Your task to perform on an android device: Toggle the flashlight Image 0: 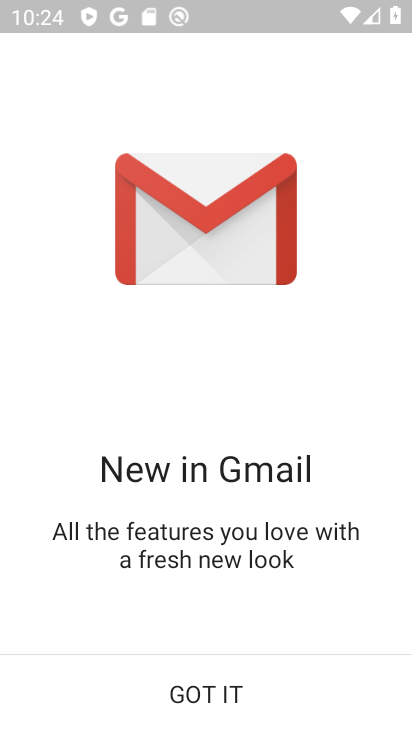
Step 0: click (206, 698)
Your task to perform on an android device: Toggle the flashlight Image 1: 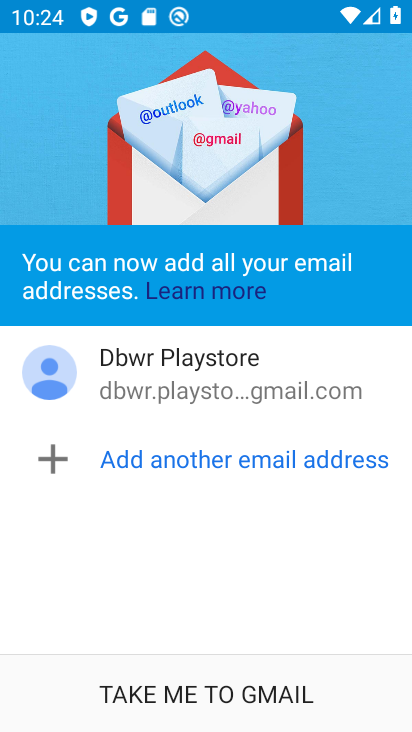
Step 1: press back button
Your task to perform on an android device: Toggle the flashlight Image 2: 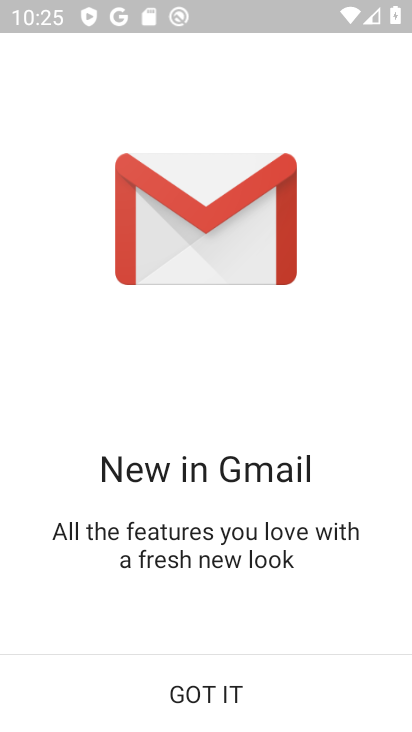
Step 2: click (163, 730)
Your task to perform on an android device: Toggle the flashlight Image 3: 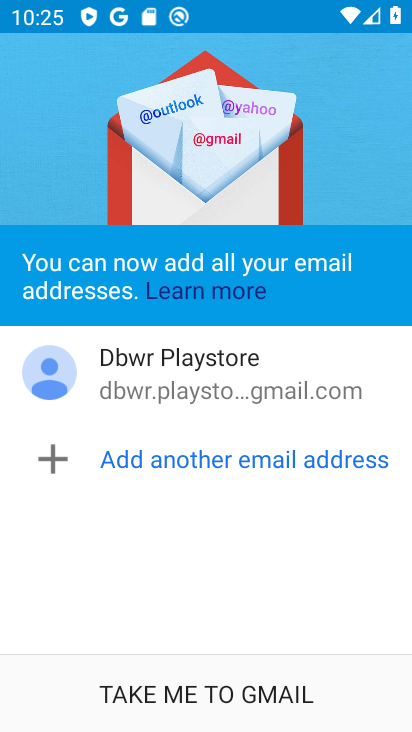
Step 3: click (176, 709)
Your task to perform on an android device: Toggle the flashlight Image 4: 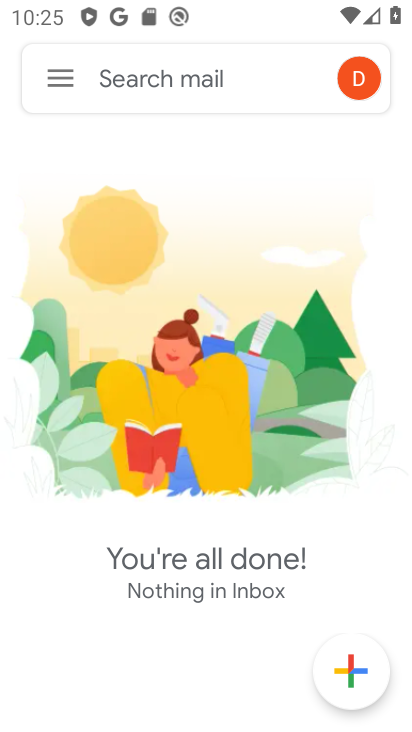
Step 4: press back button
Your task to perform on an android device: Toggle the flashlight Image 5: 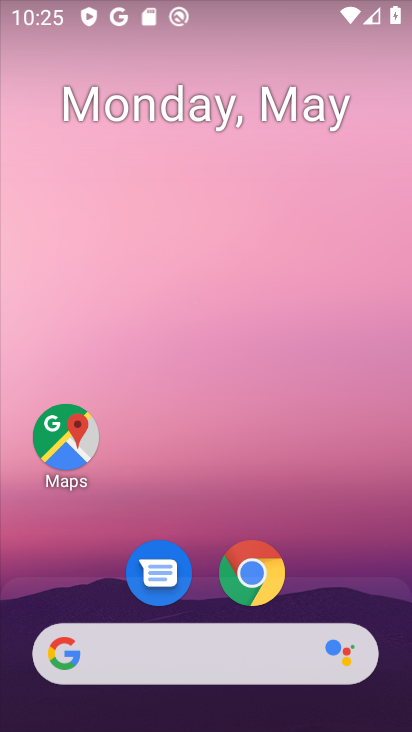
Step 5: drag from (236, 438) to (254, 41)
Your task to perform on an android device: Toggle the flashlight Image 6: 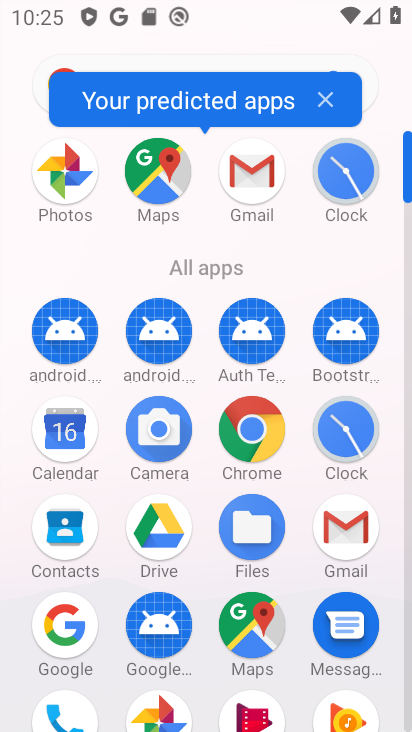
Step 6: drag from (178, 548) to (242, 85)
Your task to perform on an android device: Toggle the flashlight Image 7: 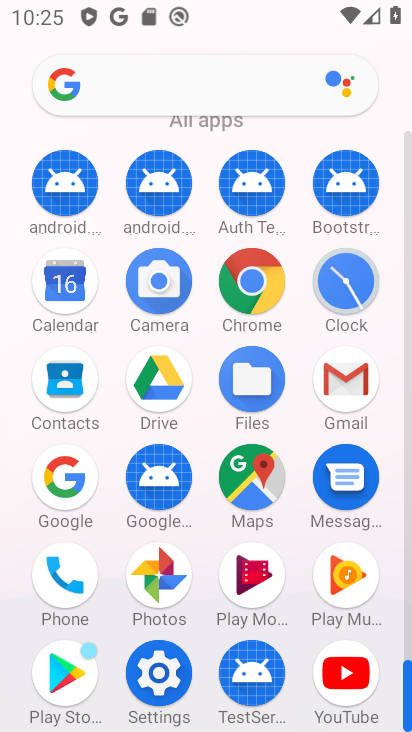
Step 7: click (151, 676)
Your task to perform on an android device: Toggle the flashlight Image 8: 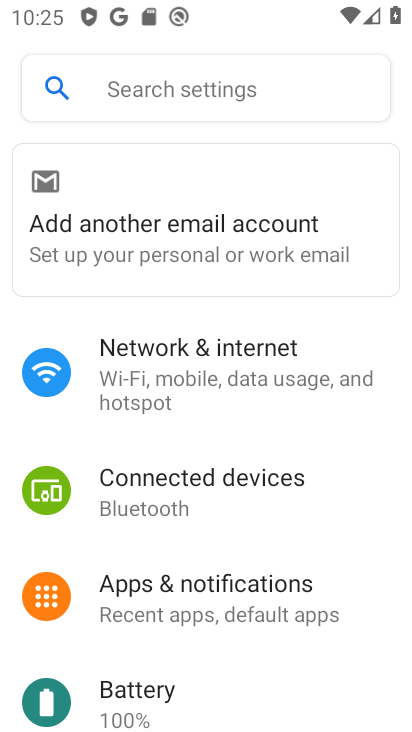
Step 8: click (162, 76)
Your task to perform on an android device: Toggle the flashlight Image 9: 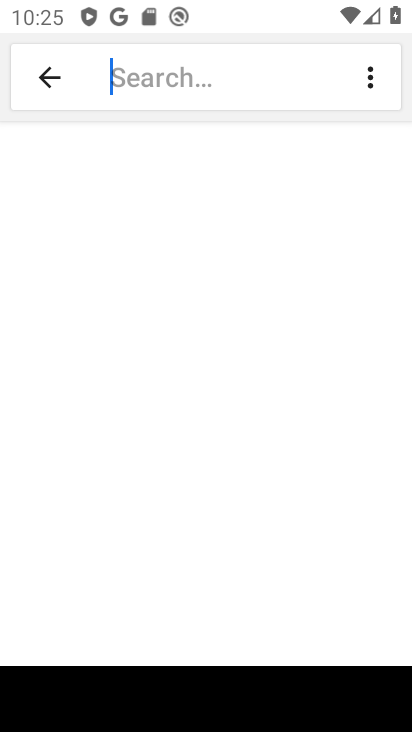
Step 9: type "flashlight"
Your task to perform on an android device: Toggle the flashlight Image 10: 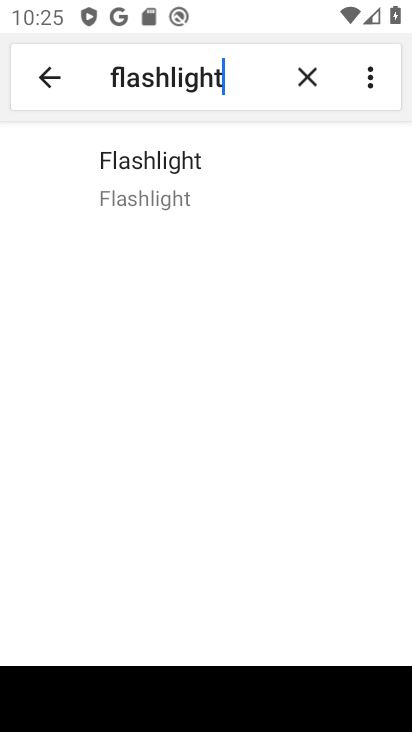
Step 10: click (147, 178)
Your task to perform on an android device: Toggle the flashlight Image 11: 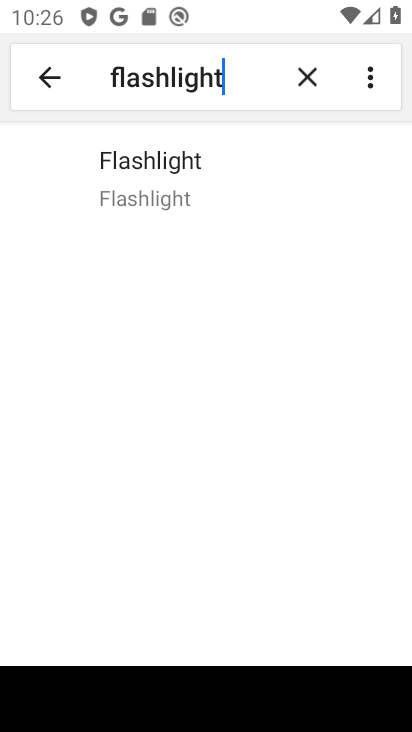
Step 11: click (153, 186)
Your task to perform on an android device: Toggle the flashlight Image 12: 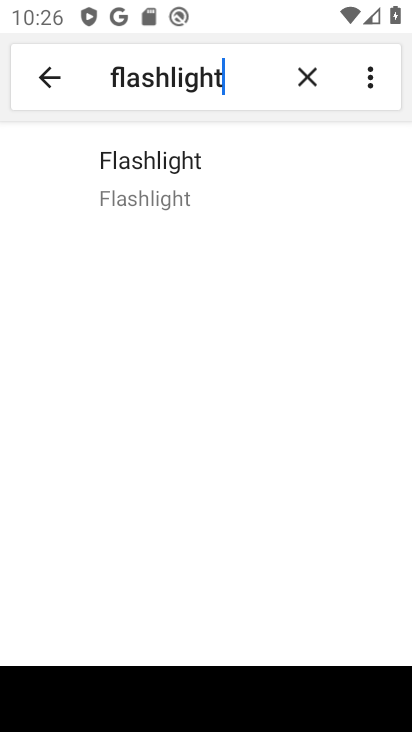
Step 12: task complete